Your task to perform on an android device: open a bookmark in the chrome app Image 0: 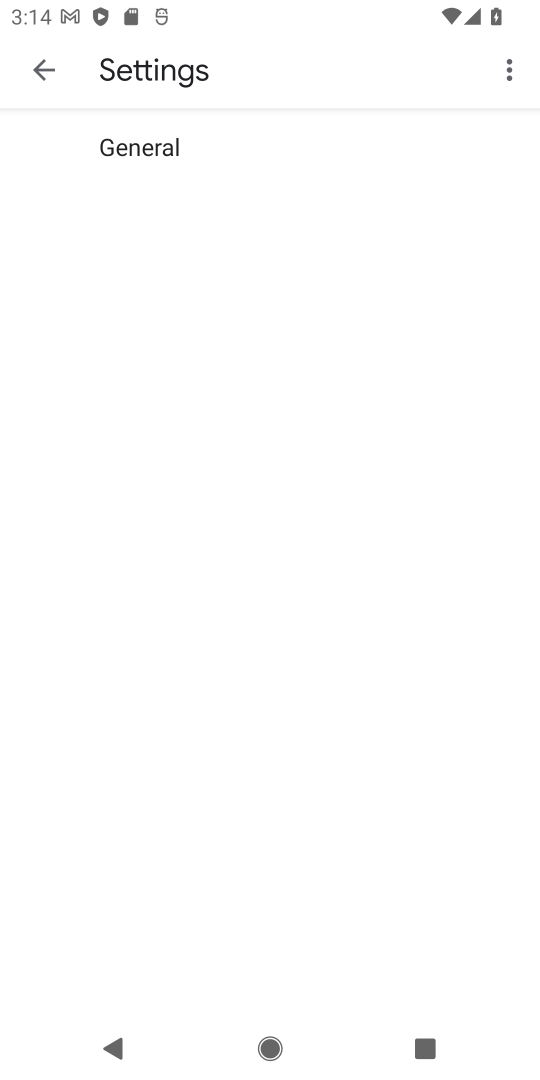
Step 0: press home button
Your task to perform on an android device: open a bookmark in the chrome app Image 1: 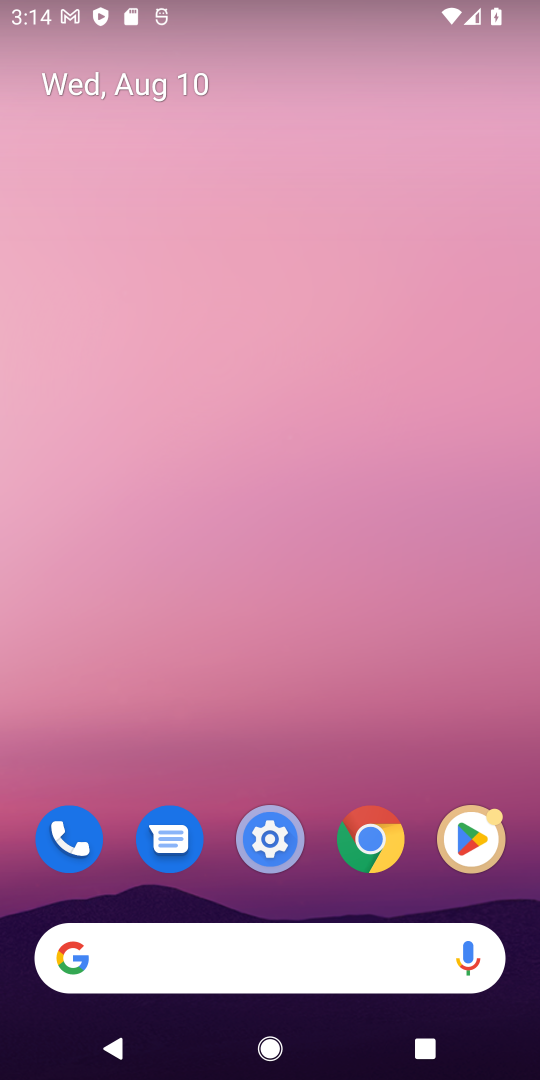
Step 1: click (375, 844)
Your task to perform on an android device: open a bookmark in the chrome app Image 2: 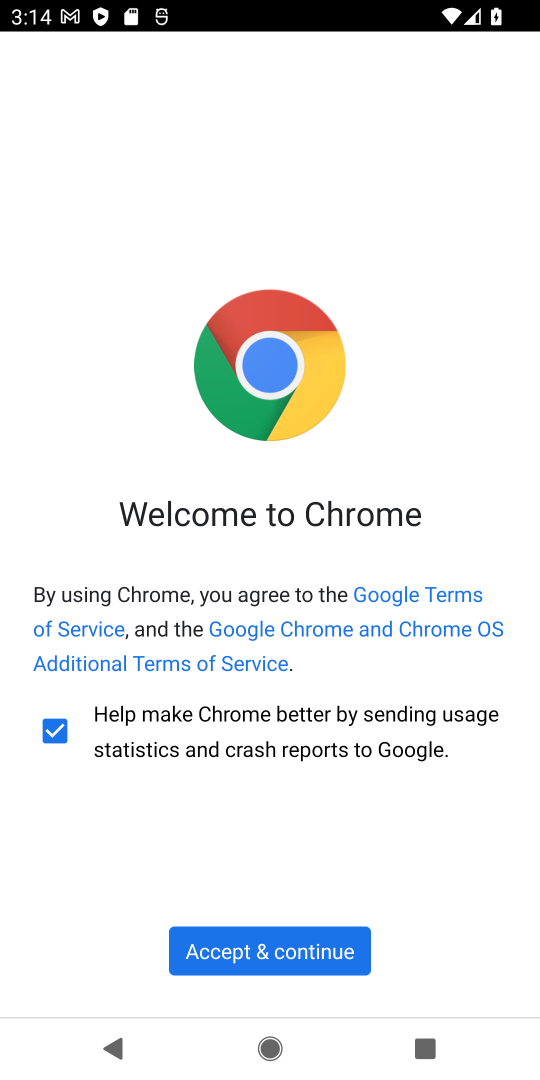
Step 2: click (323, 949)
Your task to perform on an android device: open a bookmark in the chrome app Image 3: 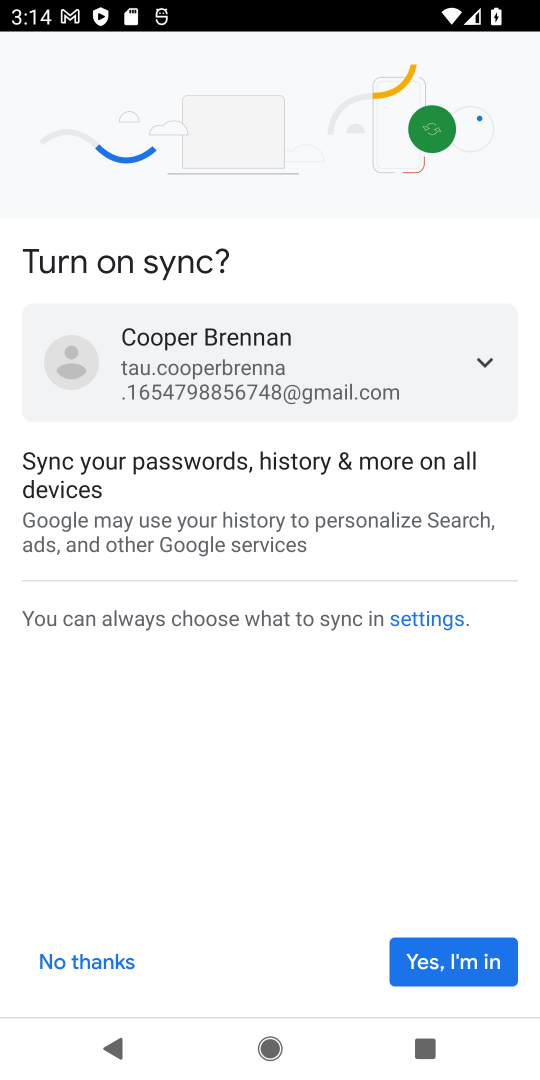
Step 3: click (425, 964)
Your task to perform on an android device: open a bookmark in the chrome app Image 4: 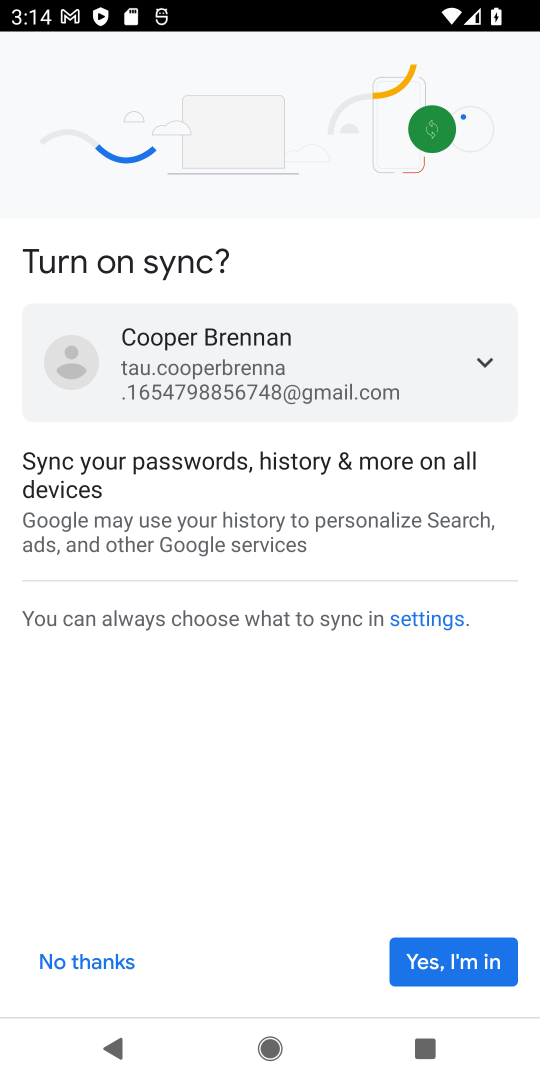
Step 4: click (425, 962)
Your task to perform on an android device: open a bookmark in the chrome app Image 5: 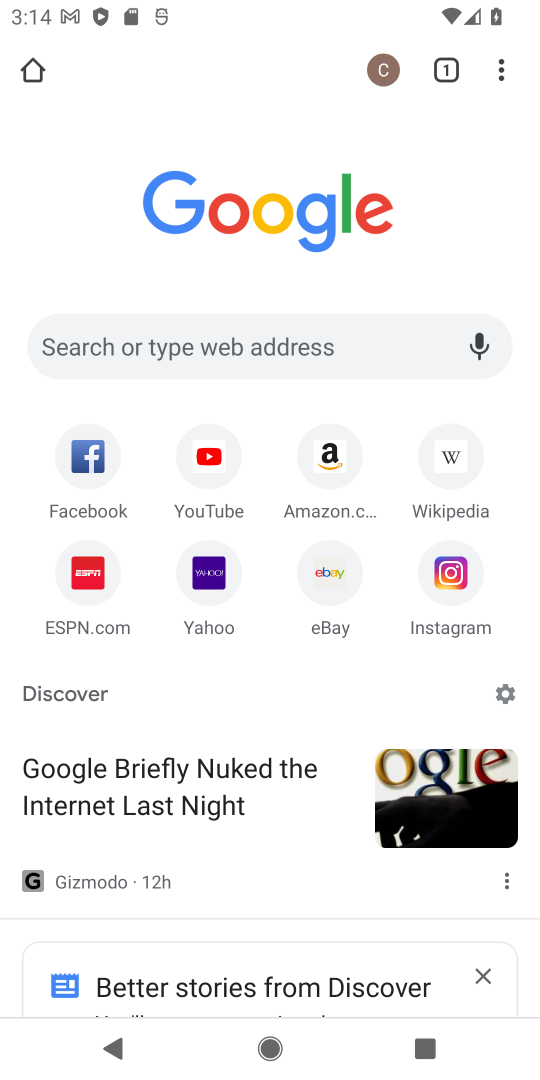
Step 5: click (502, 76)
Your task to perform on an android device: open a bookmark in the chrome app Image 6: 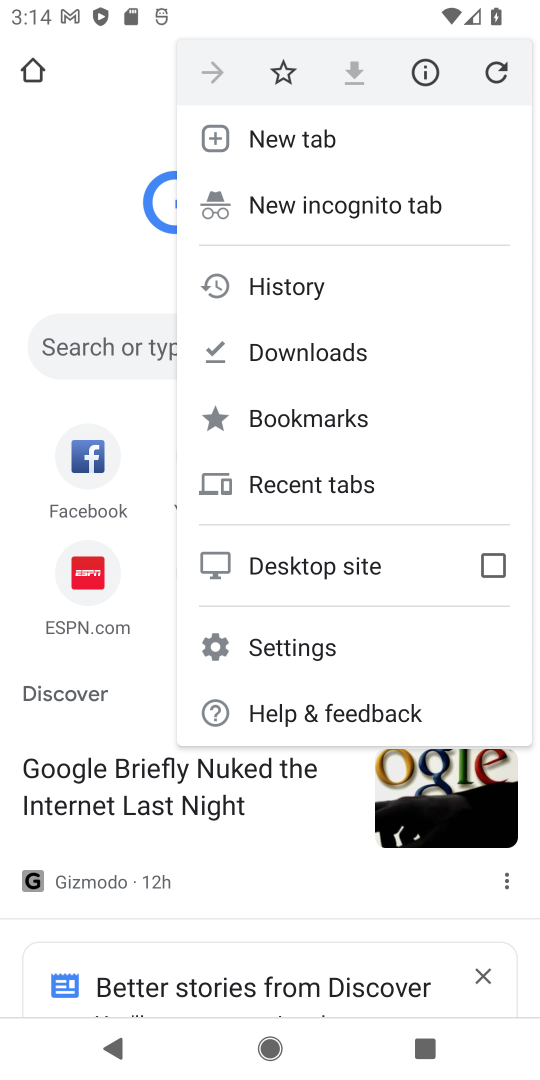
Step 6: click (337, 413)
Your task to perform on an android device: open a bookmark in the chrome app Image 7: 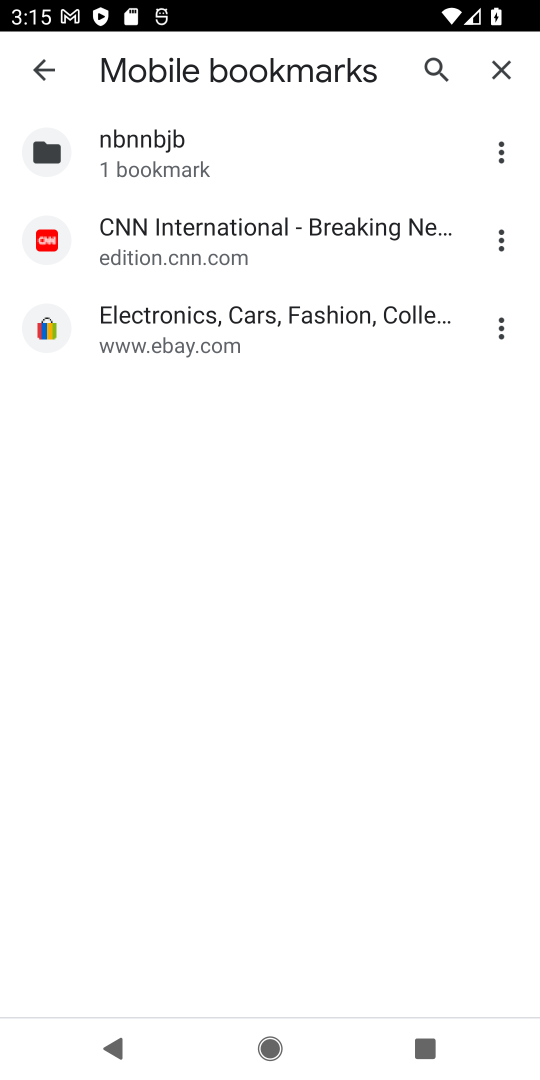
Step 7: click (335, 236)
Your task to perform on an android device: open a bookmark in the chrome app Image 8: 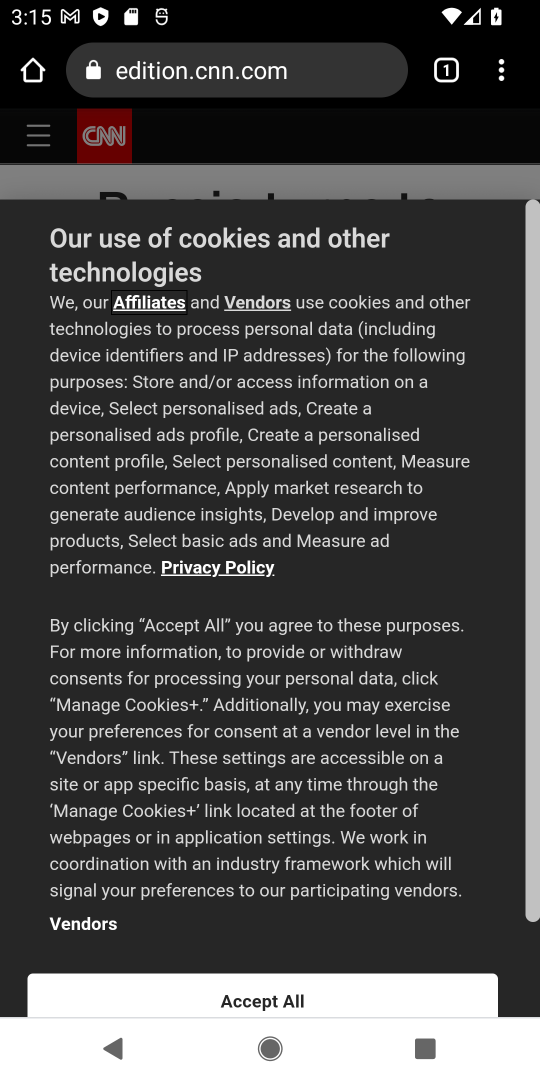
Step 8: click (306, 998)
Your task to perform on an android device: open a bookmark in the chrome app Image 9: 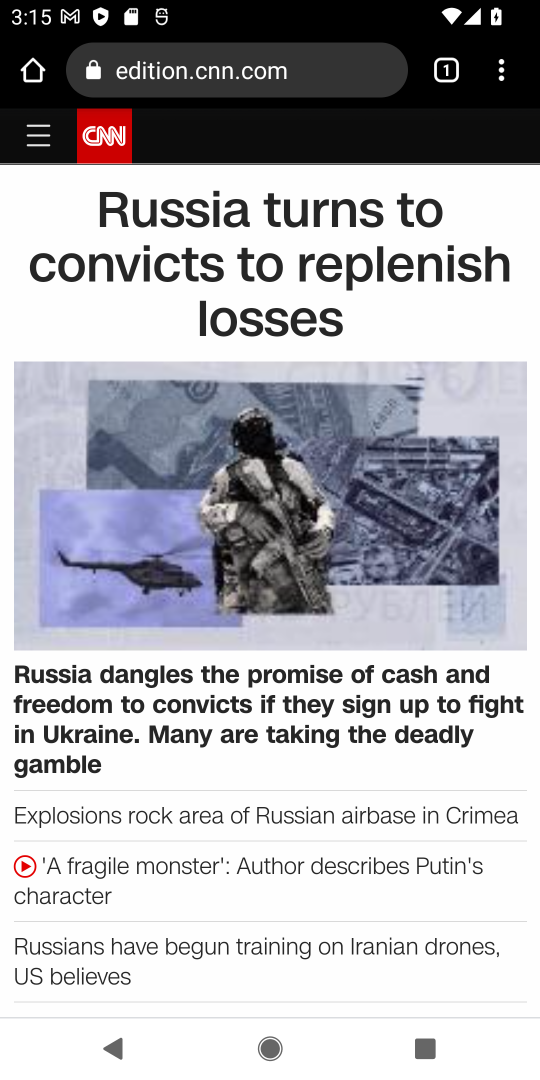
Step 9: task complete